Your task to perform on an android device: Open Google Chrome Image 0: 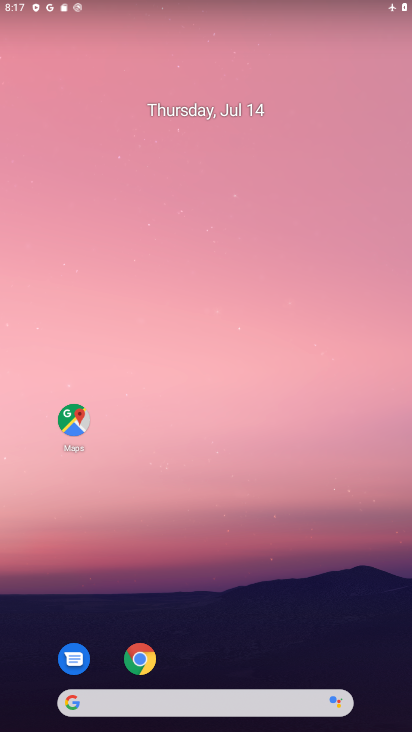
Step 0: click (147, 665)
Your task to perform on an android device: Open Google Chrome Image 1: 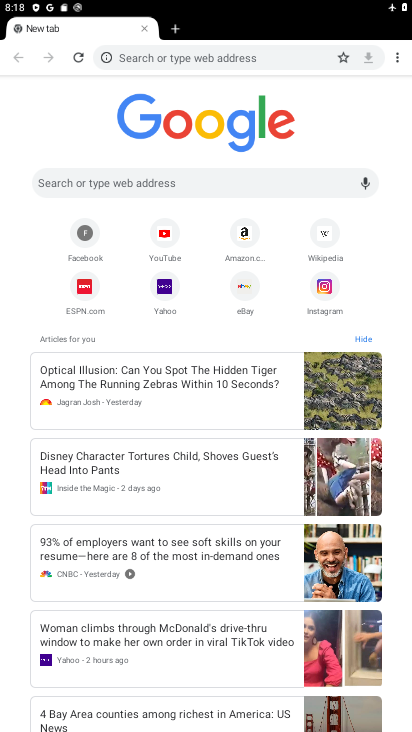
Step 1: task complete